Your task to perform on an android device: Show me popular videos on Youtube Image 0: 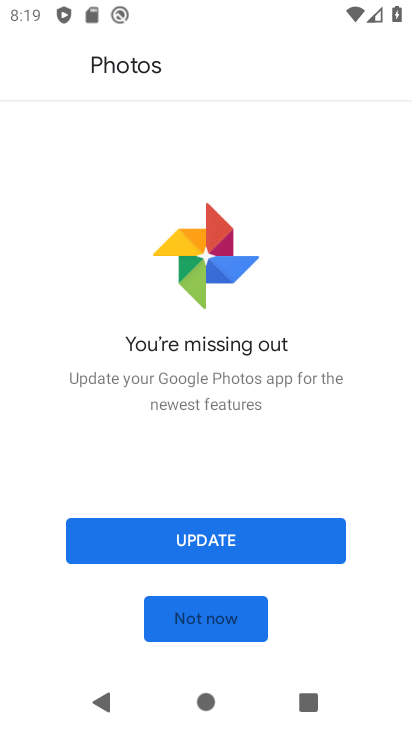
Step 0: press home button
Your task to perform on an android device: Show me popular videos on Youtube Image 1: 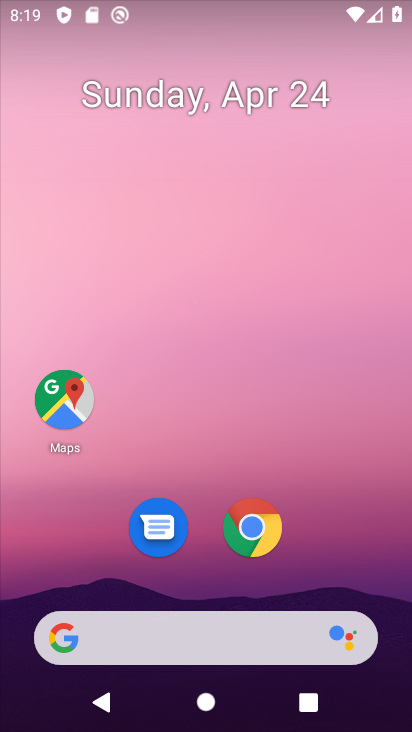
Step 1: drag from (342, 541) to (330, 7)
Your task to perform on an android device: Show me popular videos on Youtube Image 2: 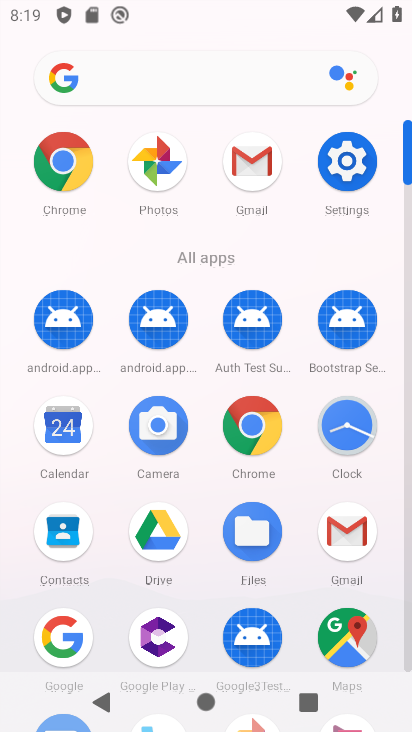
Step 2: drag from (404, 623) to (411, 574)
Your task to perform on an android device: Show me popular videos on Youtube Image 3: 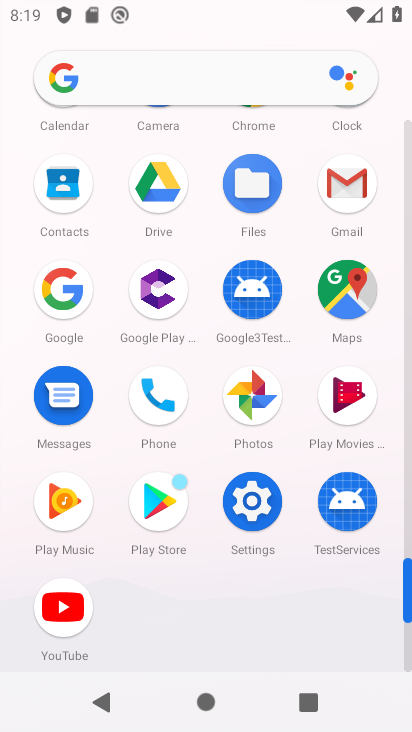
Step 3: click (58, 613)
Your task to perform on an android device: Show me popular videos on Youtube Image 4: 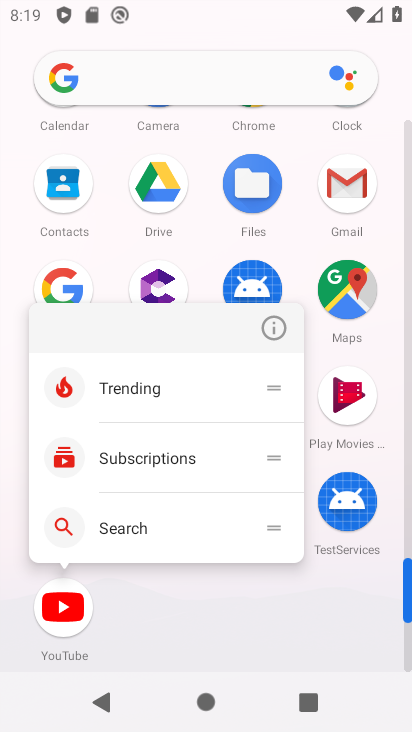
Step 4: click (58, 613)
Your task to perform on an android device: Show me popular videos on Youtube Image 5: 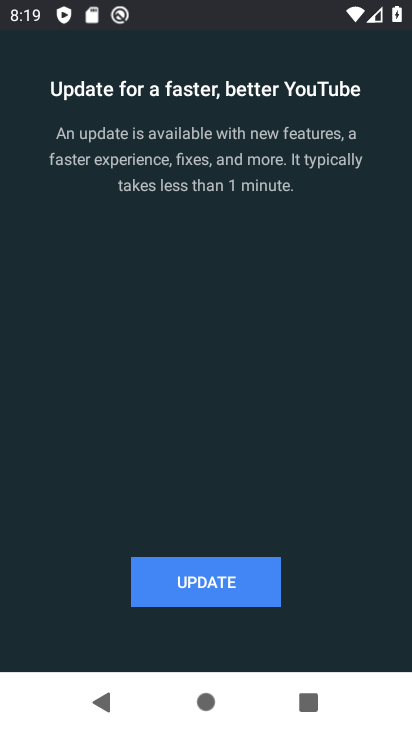
Step 5: click (180, 597)
Your task to perform on an android device: Show me popular videos on Youtube Image 6: 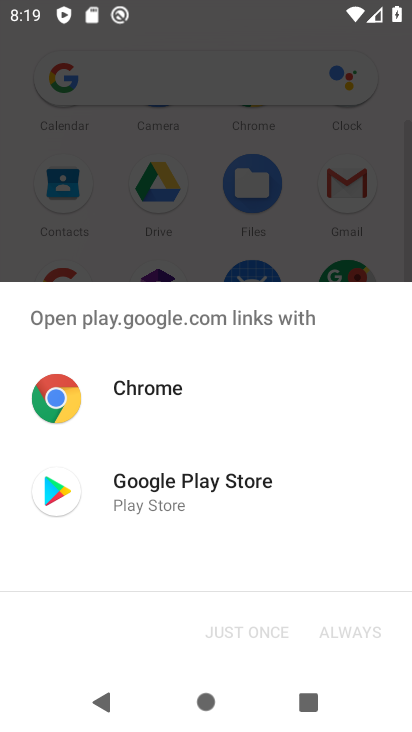
Step 6: click (140, 498)
Your task to perform on an android device: Show me popular videos on Youtube Image 7: 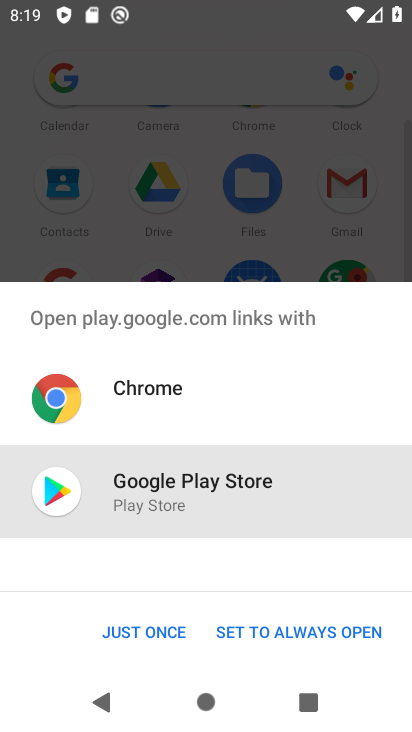
Step 7: click (120, 634)
Your task to perform on an android device: Show me popular videos on Youtube Image 8: 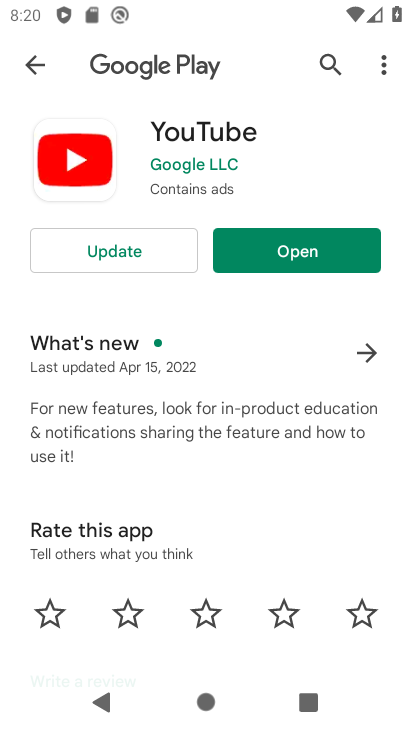
Step 8: click (81, 261)
Your task to perform on an android device: Show me popular videos on Youtube Image 9: 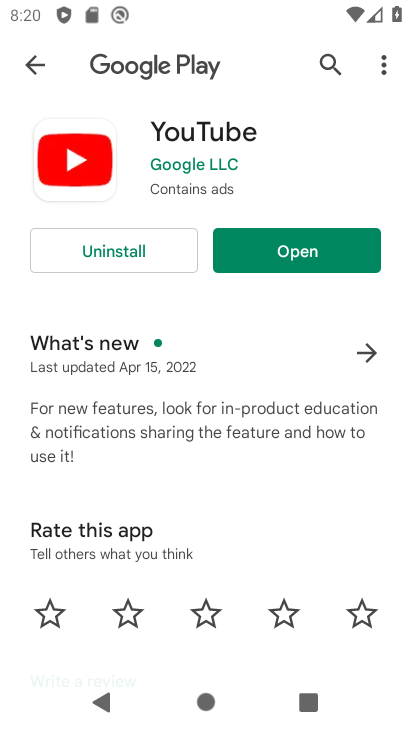
Step 9: click (298, 262)
Your task to perform on an android device: Show me popular videos on Youtube Image 10: 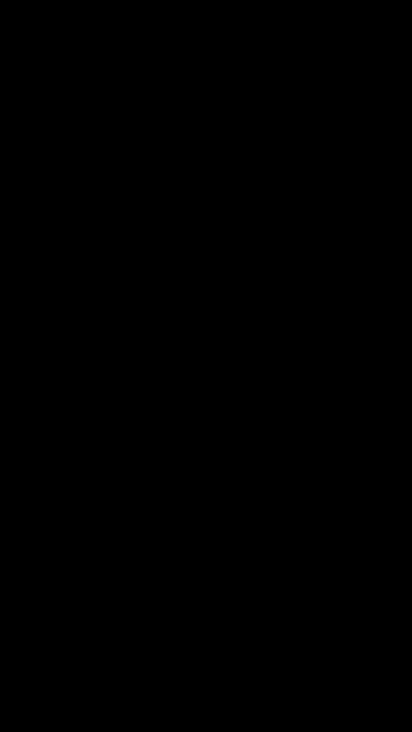
Step 10: task complete